Your task to perform on an android device: Go to privacy settings Image 0: 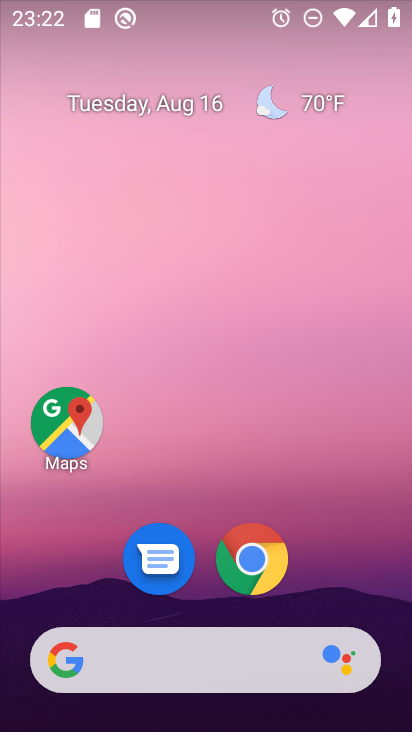
Step 0: drag from (152, 667) to (210, 73)
Your task to perform on an android device: Go to privacy settings Image 1: 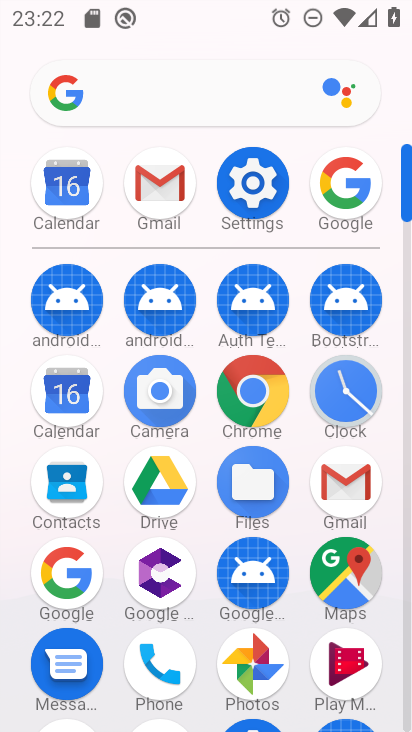
Step 1: click (254, 184)
Your task to perform on an android device: Go to privacy settings Image 2: 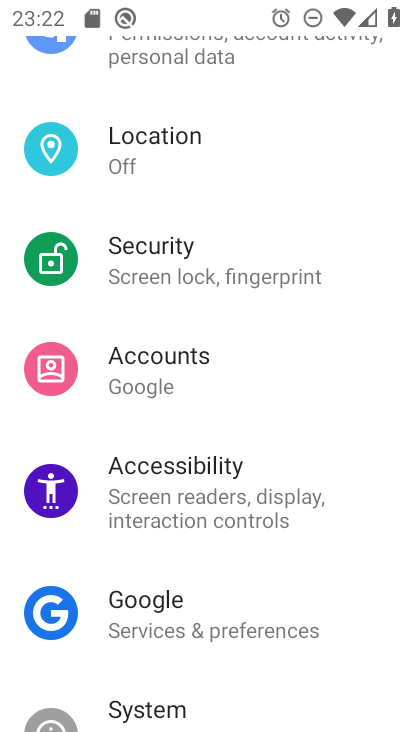
Step 2: drag from (215, 204) to (259, 352)
Your task to perform on an android device: Go to privacy settings Image 3: 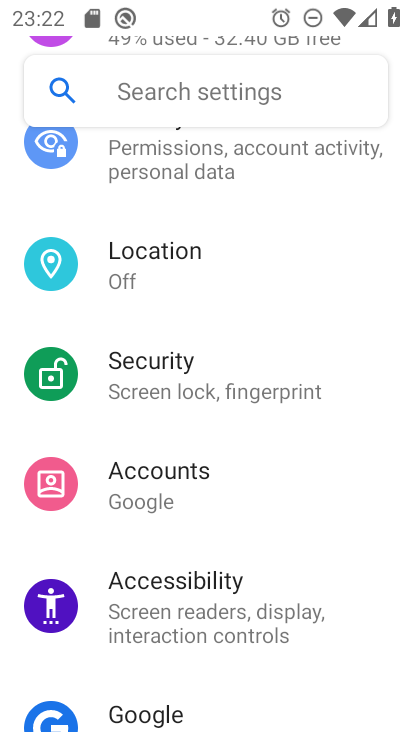
Step 3: drag from (244, 201) to (274, 417)
Your task to perform on an android device: Go to privacy settings Image 4: 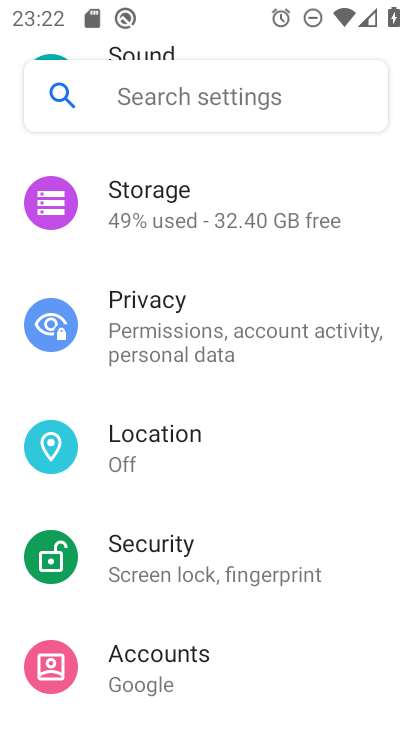
Step 4: click (173, 312)
Your task to perform on an android device: Go to privacy settings Image 5: 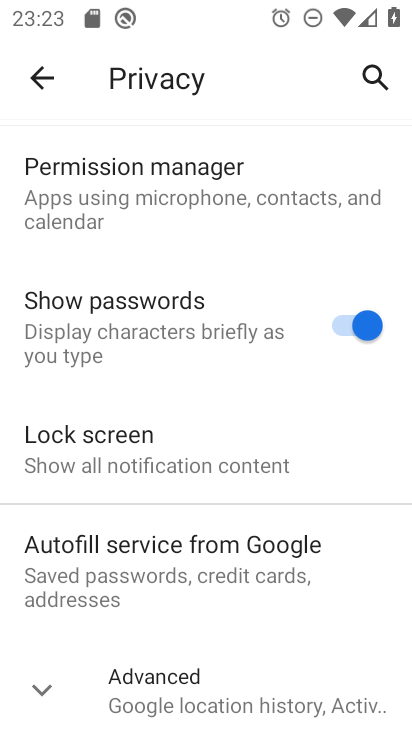
Step 5: task complete